Your task to perform on an android device: Open calendar and show me the second week of next month Image 0: 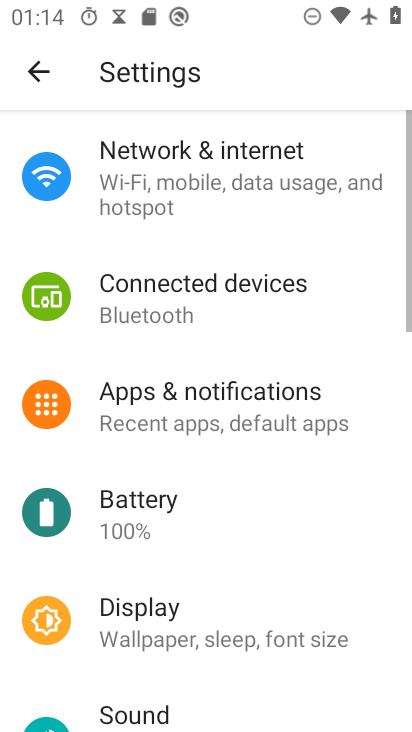
Step 0: press home button
Your task to perform on an android device: Open calendar and show me the second week of next month Image 1: 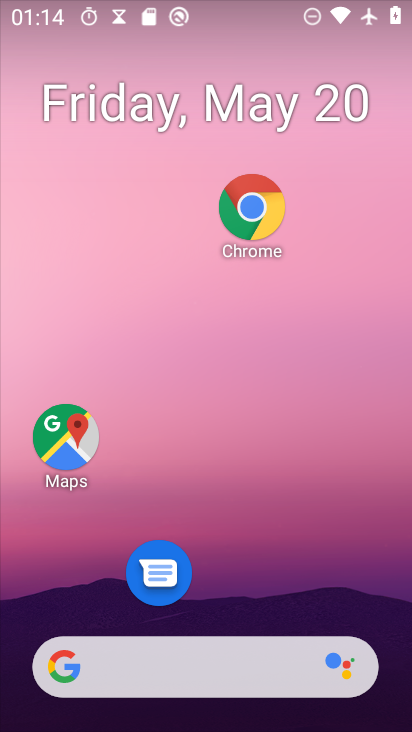
Step 1: drag from (269, 554) to (267, 79)
Your task to perform on an android device: Open calendar and show me the second week of next month Image 2: 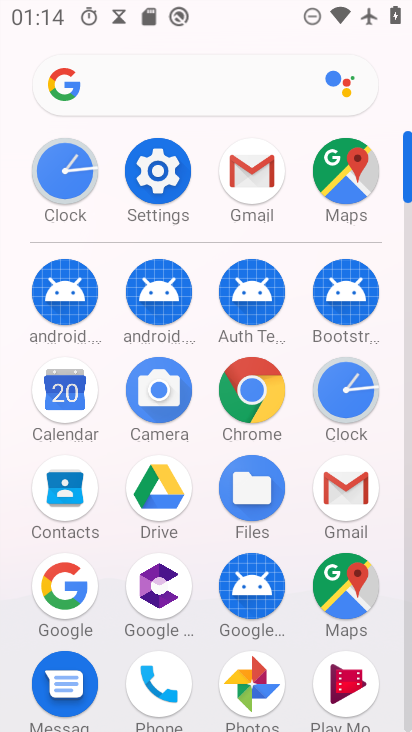
Step 2: click (60, 391)
Your task to perform on an android device: Open calendar and show me the second week of next month Image 3: 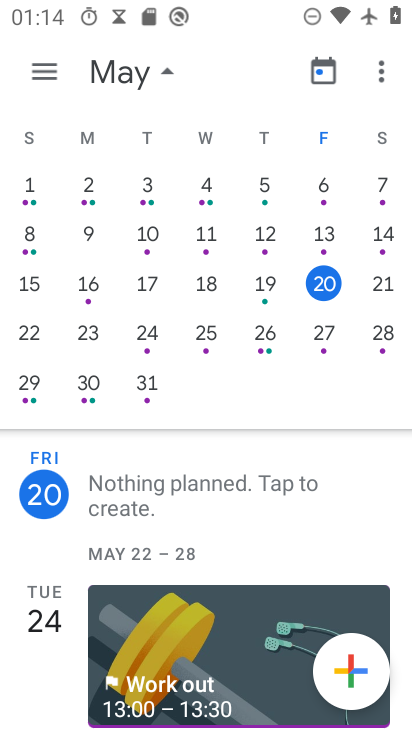
Step 3: drag from (359, 289) to (28, 247)
Your task to perform on an android device: Open calendar and show me the second week of next month Image 4: 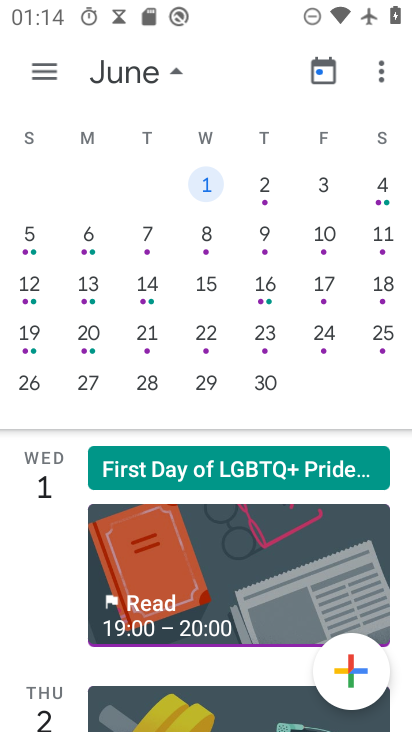
Step 4: click (34, 255)
Your task to perform on an android device: Open calendar and show me the second week of next month Image 5: 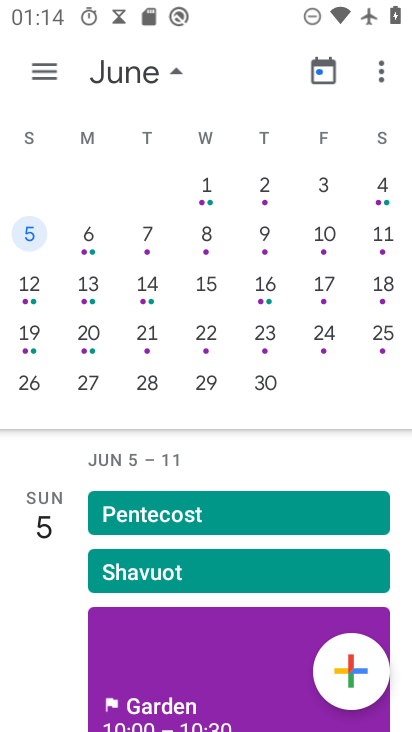
Step 5: task complete